Your task to perform on an android device: Open Chrome and go to the settings page Image 0: 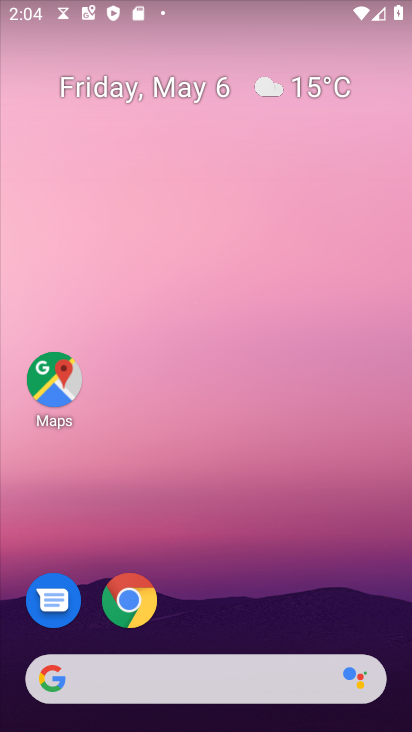
Step 0: drag from (272, 477) to (15, 201)
Your task to perform on an android device: Open Chrome and go to the settings page Image 1: 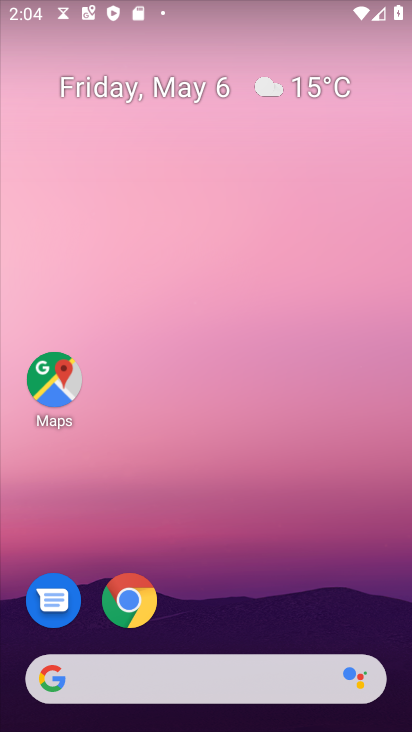
Step 1: drag from (15, 681) to (16, 69)
Your task to perform on an android device: Open Chrome and go to the settings page Image 2: 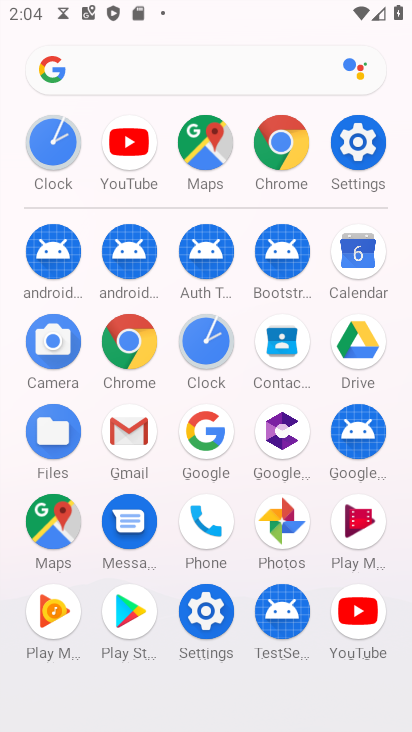
Step 2: drag from (6, 584) to (15, 324)
Your task to perform on an android device: Open Chrome and go to the settings page Image 3: 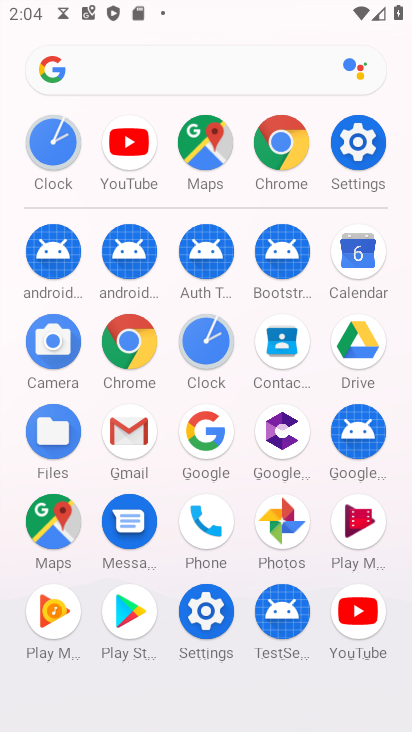
Step 3: click (124, 339)
Your task to perform on an android device: Open Chrome and go to the settings page Image 4: 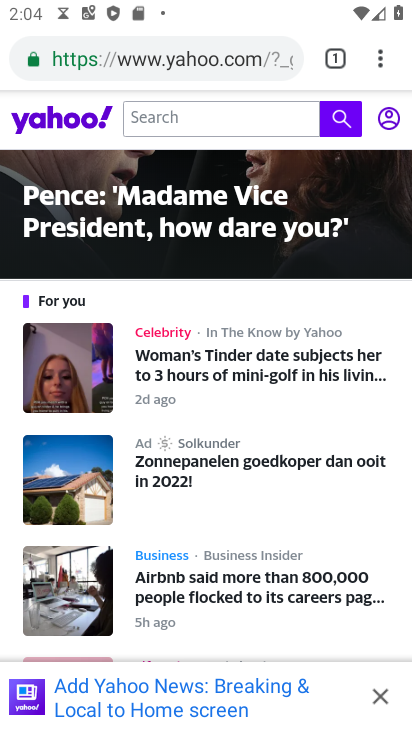
Step 4: task complete